Your task to perform on an android device: Set the phone to "Do not disturb". Image 0: 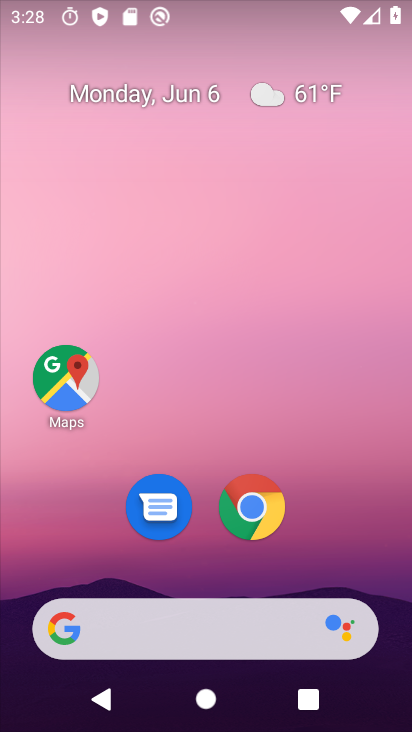
Step 0: drag from (209, 572) to (193, 175)
Your task to perform on an android device: Set the phone to "Do not disturb". Image 1: 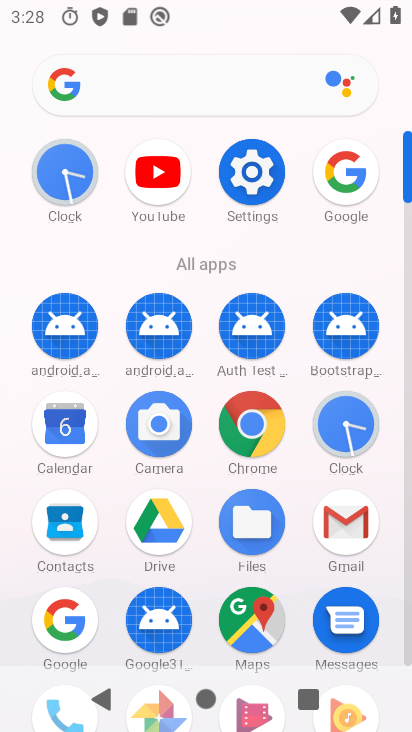
Step 1: click (255, 197)
Your task to perform on an android device: Set the phone to "Do not disturb". Image 2: 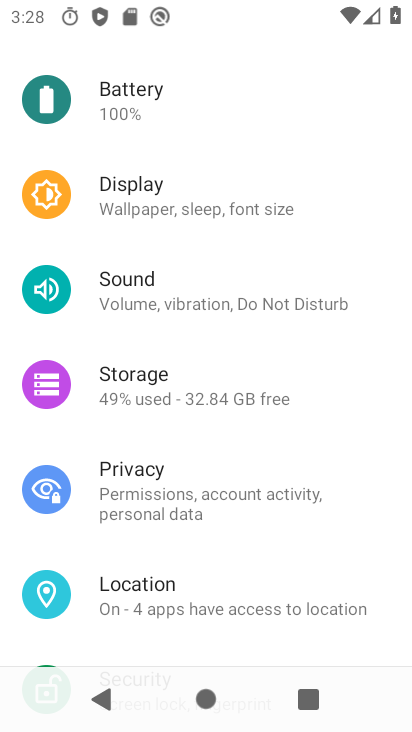
Step 2: click (159, 304)
Your task to perform on an android device: Set the phone to "Do not disturb". Image 3: 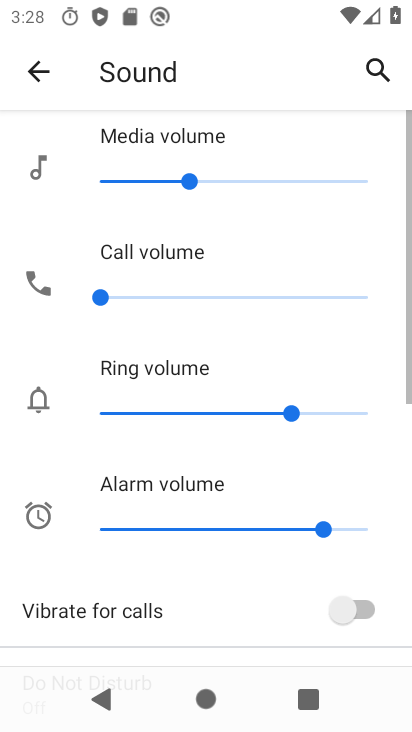
Step 3: drag from (191, 582) to (226, 226)
Your task to perform on an android device: Set the phone to "Do not disturb". Image 4: 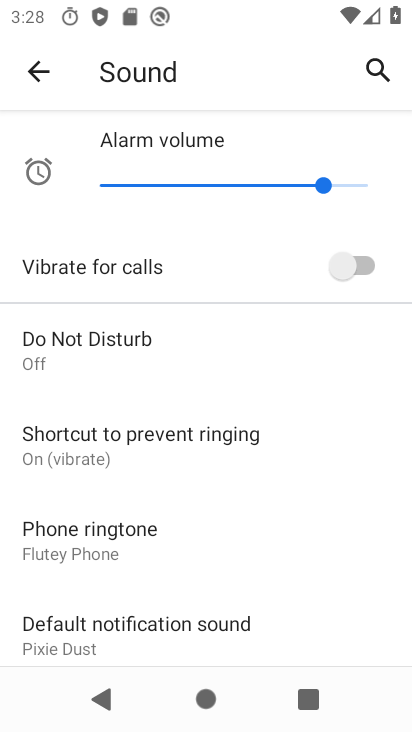
Step 4: click (102, 357)
Your task to perform on an android device: Set the phone to "Do not disturb". Image 5: 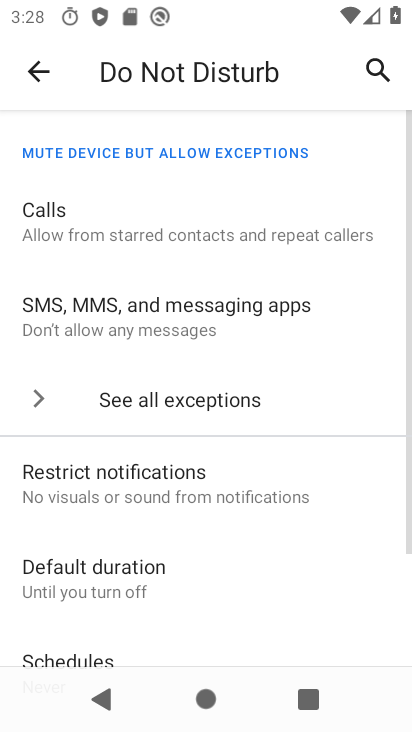
Step 5: drag from (169, 576) to (220, 244)
Your task to perform on an android device: Set the phone to "Do not disturb". Image 6: 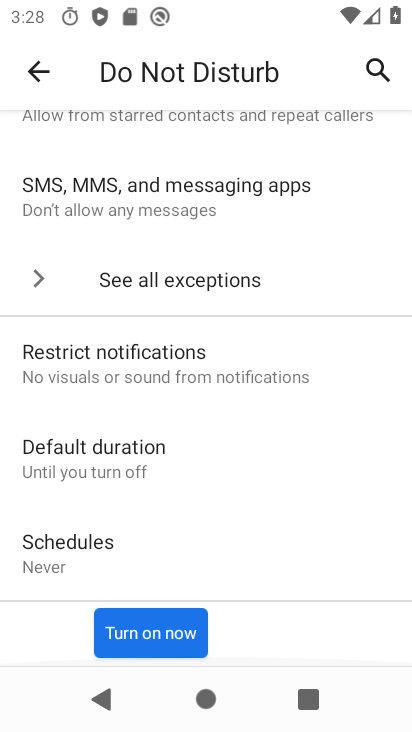
Step 6: click (153, 617)
Your task to perform on an android device: Set the phone to "Do not disturb". Image 7: 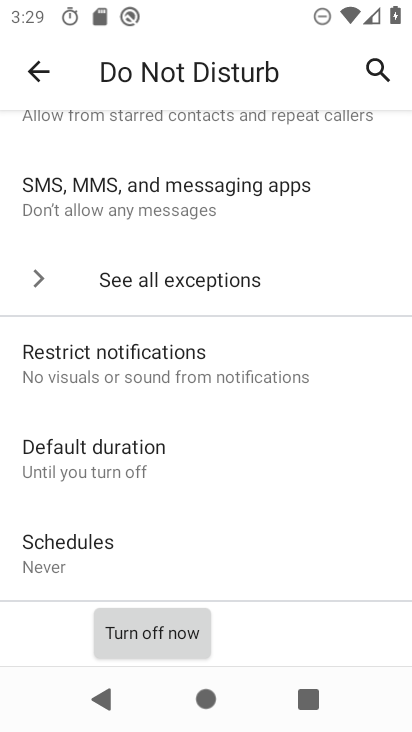
Step 7: task complete